Your task to perform on an android device: toggle sleep mode Image 0: 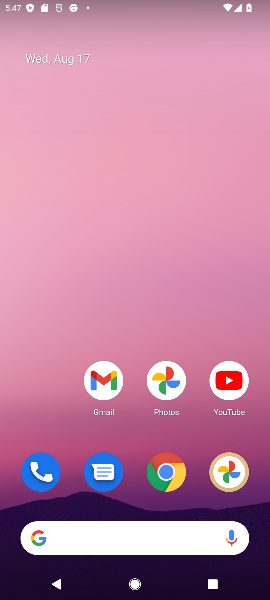
Step 0: drag from (133, 431) to (139, 57)
Your task to perform on an android device: toggle sleep mode Image 1: 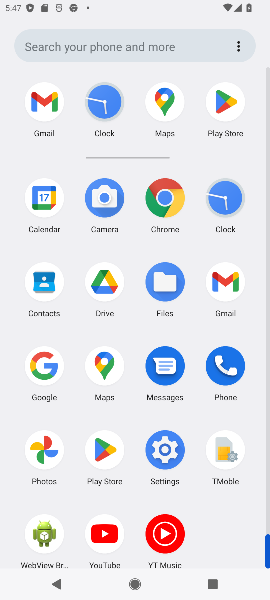
Step 1: click (165, 456)
Your task to perform on an android device: toggle sleep mode Image 2: 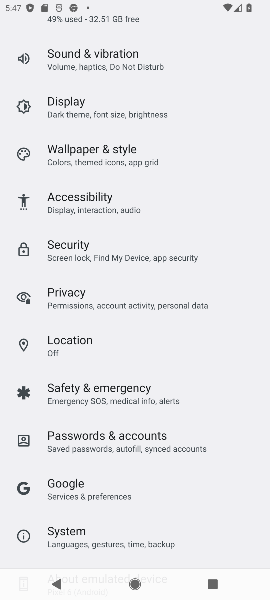
Step 2: click (87, 114)
Your task to perform on an android device: toggle sleep mode Image 3: 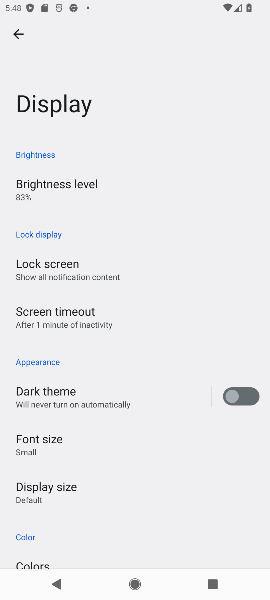
Step 3: click (84, 323)
Your task to perform on an android device: toggle sleep mode Image 4: 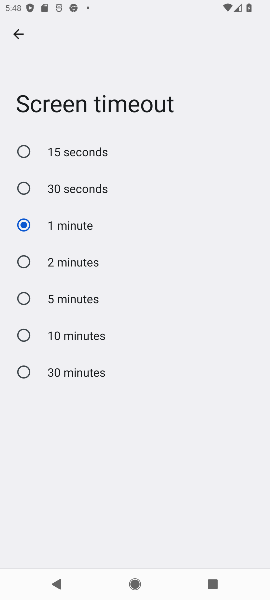
Step 4: click (75, 268)
Your task to perform on an android device: toggle sleep mode Image 5: 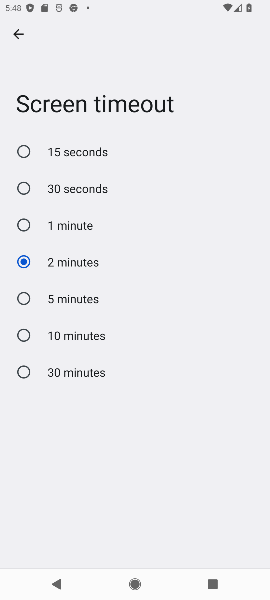
Step 5: task complete